Your task to perform on an android device: turn pop-ups off in chrome Image 0: 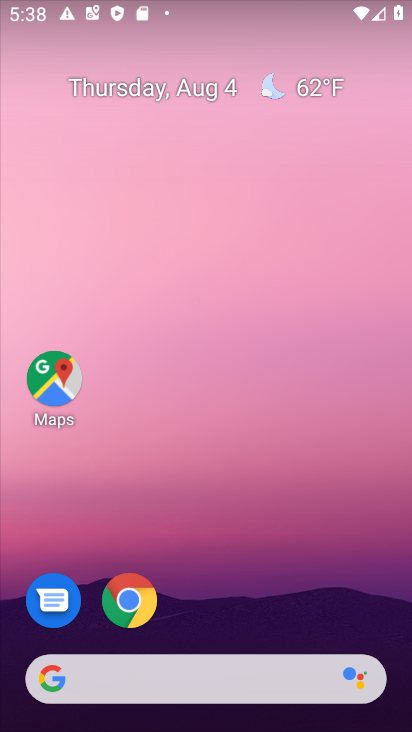
Step 0: click (132, 603)
Your task to perform on an android device: turn pop-ups off in chrome Image 1: 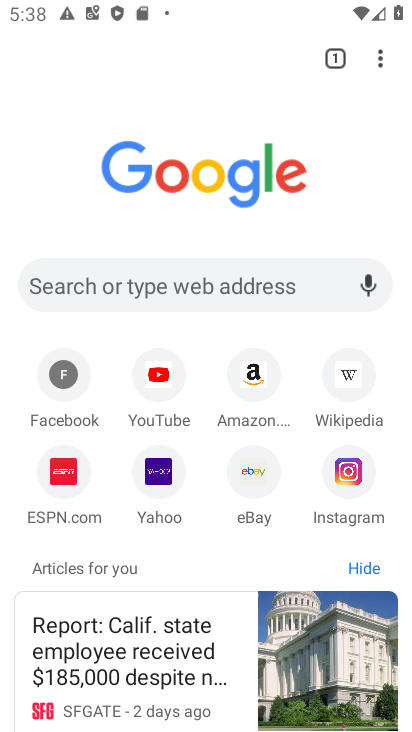
Step 1: drag from (382, 57) to (222, 484)
Your task to perform on an android device: turn pop-ups off in chrome Image 2: 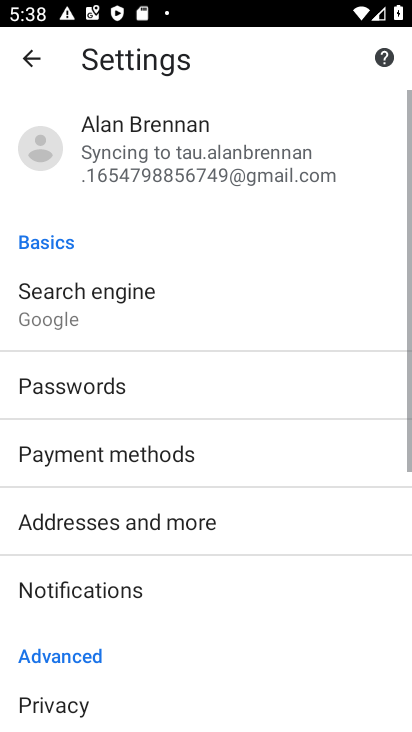
Step 2: drag from (223, 590) to (304, 17)
Your task to perform on an android device: turn pop-ups off in chrome Image 3: 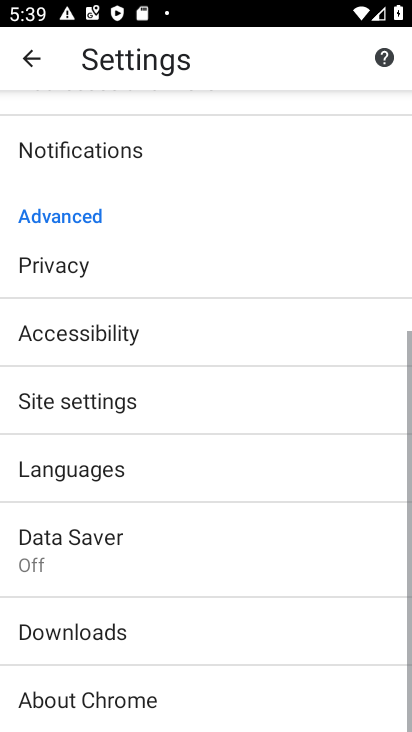
Step 3: click (75, 393)
Your task to perform on an android device: turn pop-ups off in chrome Image 4: 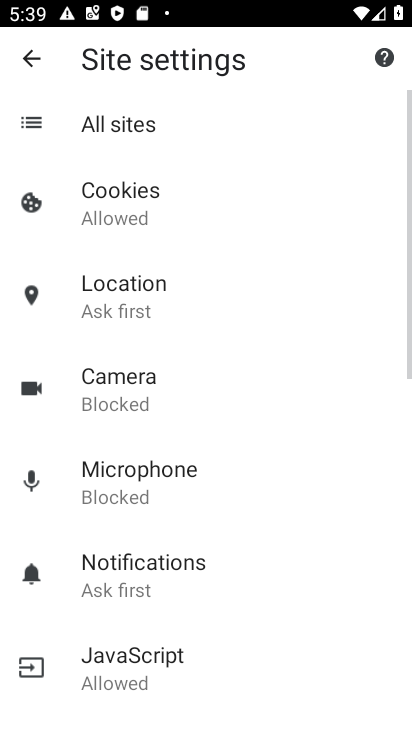
Step 4: drag from (144, 667) to (257, 155)
Your task to perform on an android device: turn pop-ups off in chrome Image 5: 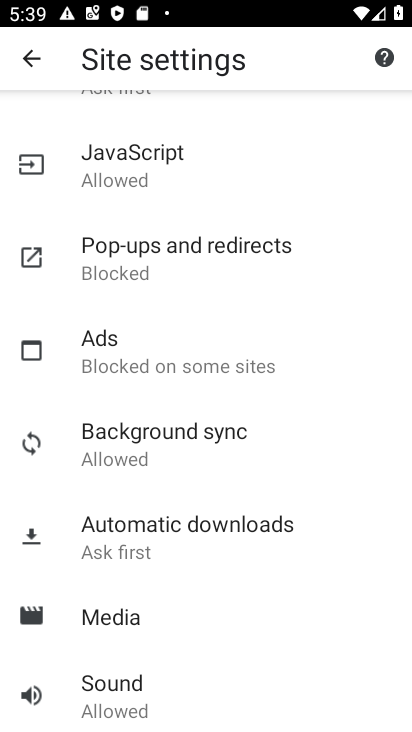
Step 5: click (204, 261)
Your task to perform on an android device: turn pop-ups off in chrome Image 6: 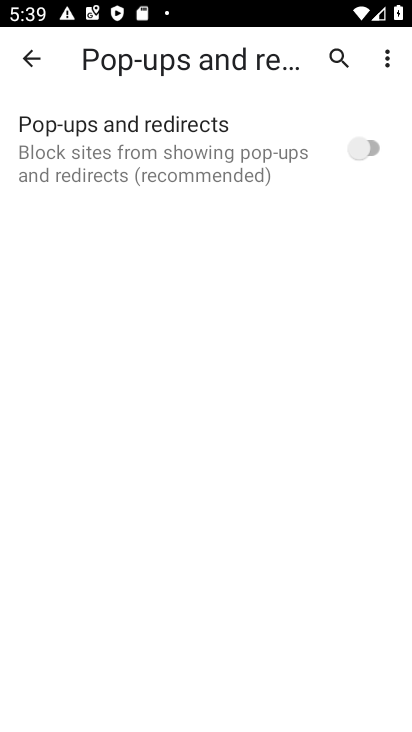
Step 6: task complete